Your task to perform on an android device: Go to CNN.com Image 0: 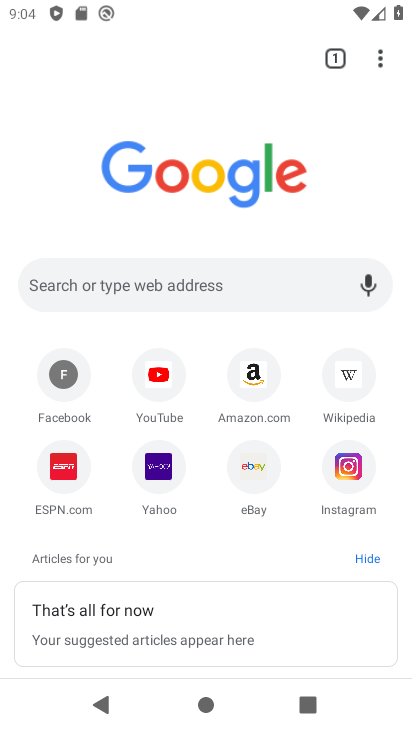
Step 0: click (157, 277)
Your task to perform on an android device: Go to CNN.com Image 1: 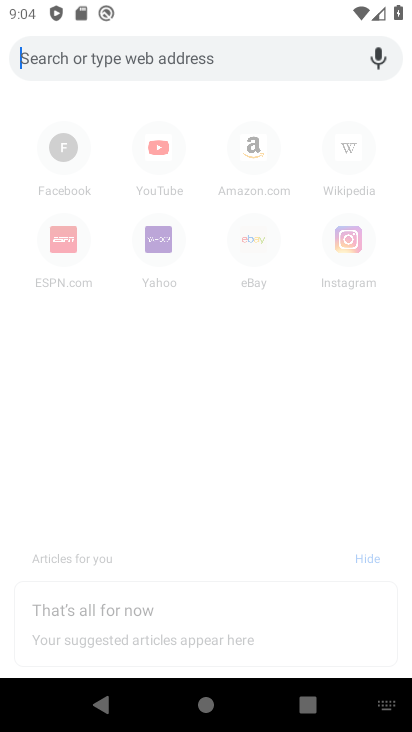
Step 1: type "CNN.com"
Your task to perform on an android device: Go to CNN.com Image 2: 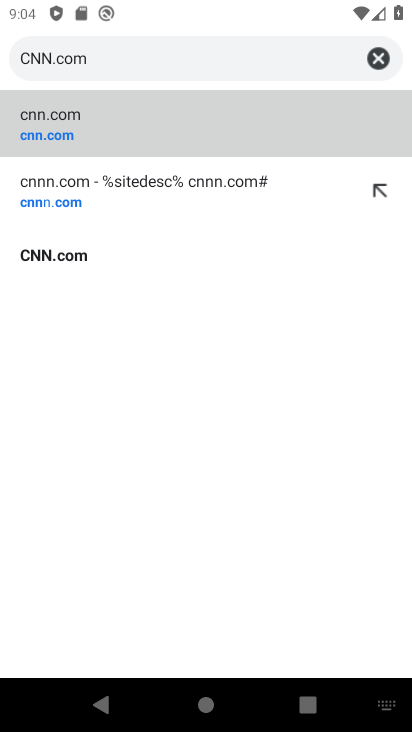
Step 2: click (68, 268)
Your task to perform on an android device: Go to CNN.com Image 3: 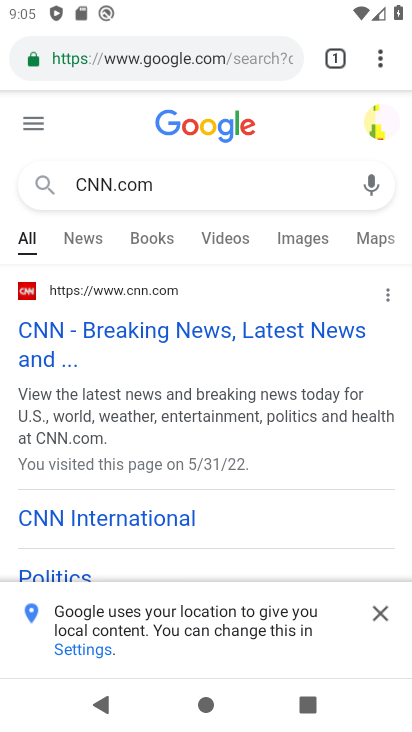
Step 3: task complete